Your task to perform on an android device: Go to calendar. Show me events next week Image 0: 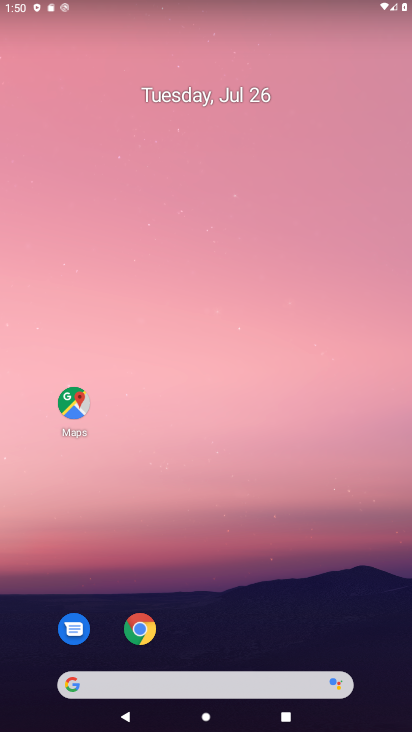
Step 0: drag from (221, 634) to (205, 221)
Your task to perform on an android device: Go to calendar. Show me events next week Image 1: 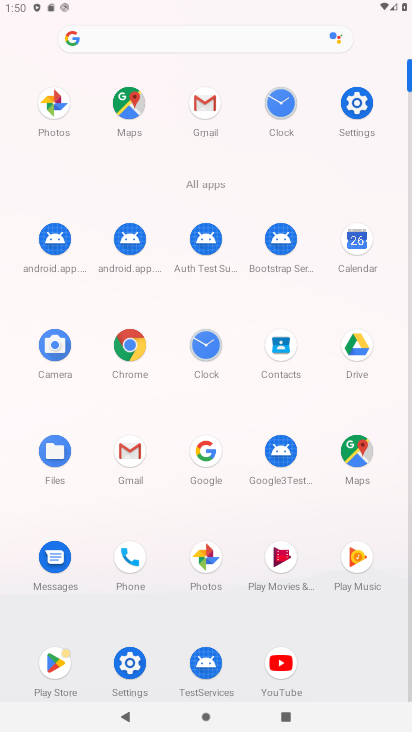
Step 1: click (343, 254)
Your task to perform on an android device: Go to calendar. Show me events next week Image 2: 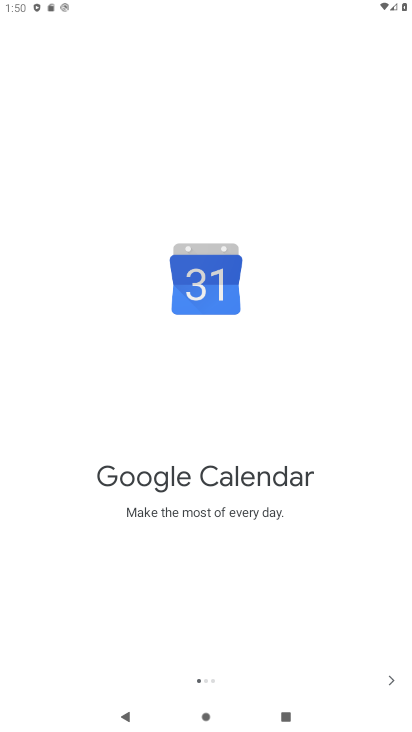
Step 2: click (390, 675)
Your task to perform on an android device: Go to calendar. Show me events next week Image 3: 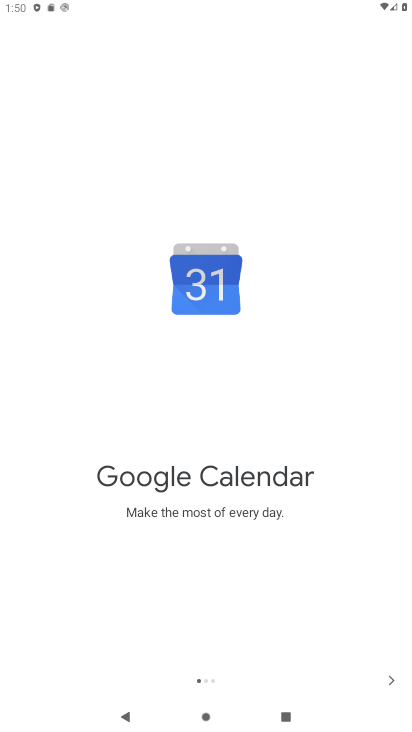
Step 3: click (390, 675)
Your task to perform on an android device: Go to calendar. Show me events next week Image 4: 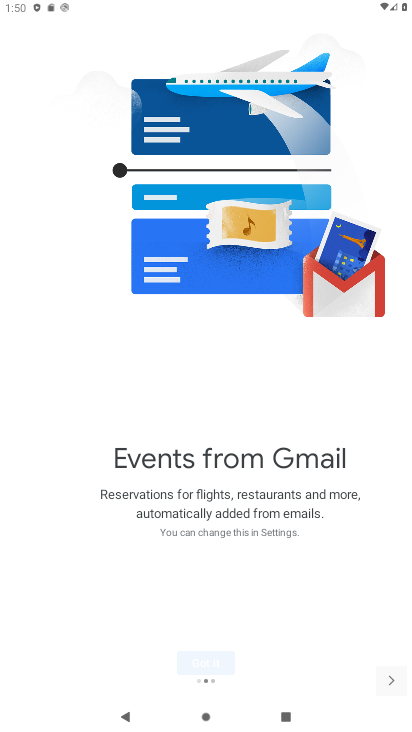
Step 4: click (390, 675)
Your task to perform on an android device: Go to calendar. Show me events next week Image 5: 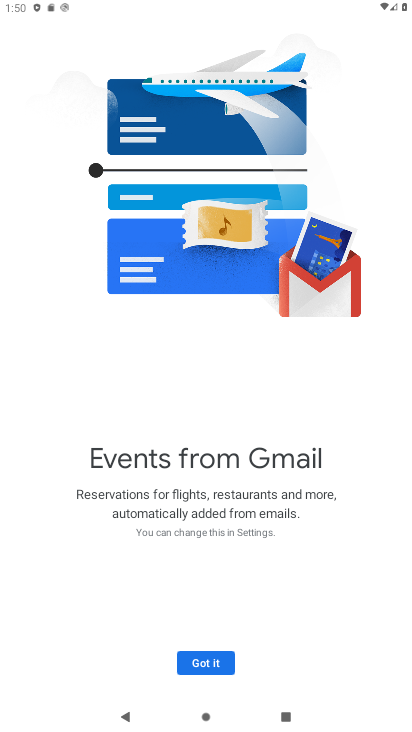
Step 5: click (224, 659)
Your task to perform on an android device: Go to calendar. Show me events next week Image 6: 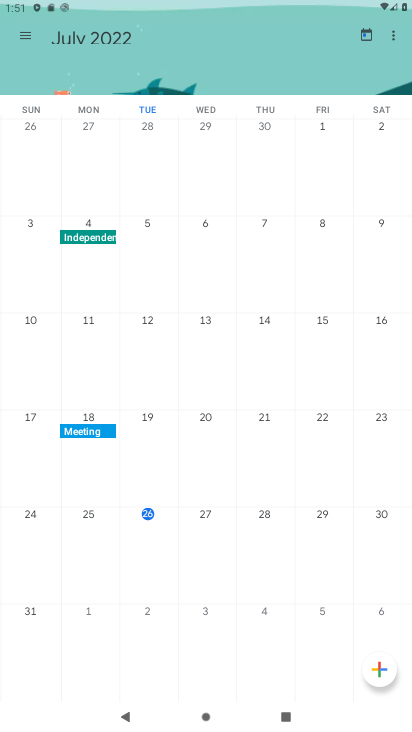
Step 6: click (355, 623)
Your task to perform on an android device: Go to calendar. Show me events next week Image 7: 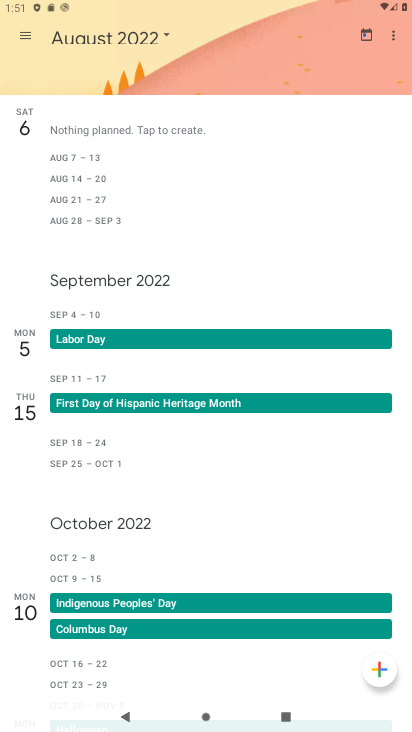
Step 7: task complete